Your task to perform on an android device: What is the recent news? Image 0: 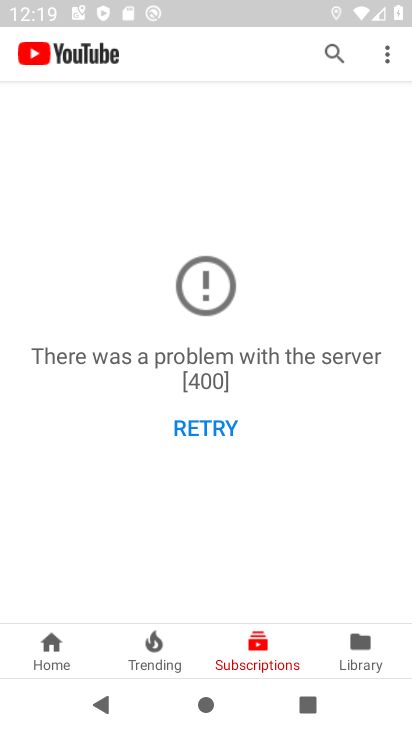
Step 0: press home button
Your task to perform on an android device: What is the recent news? Image 1: 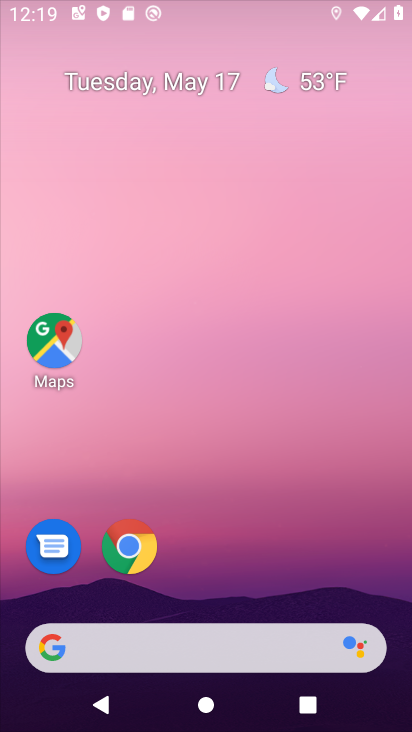
Step 1: drag from (209, 571) to (248, 131)
Your task to perform on an android device: What is the recent news? Image 2: 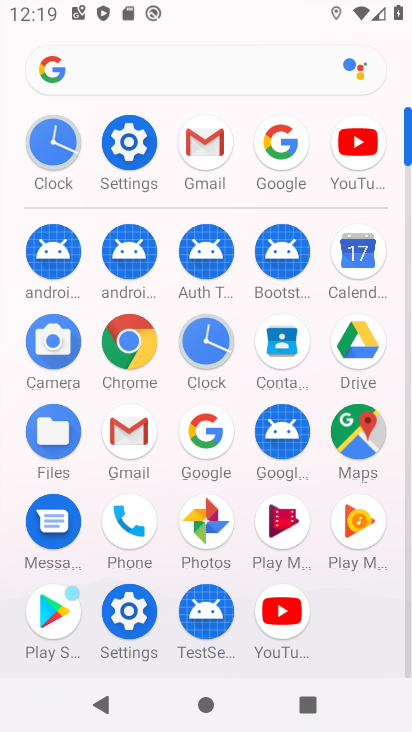
Step 2: click (206, 434)
Your task to perform on an android device: What is the recent news? Image 3: 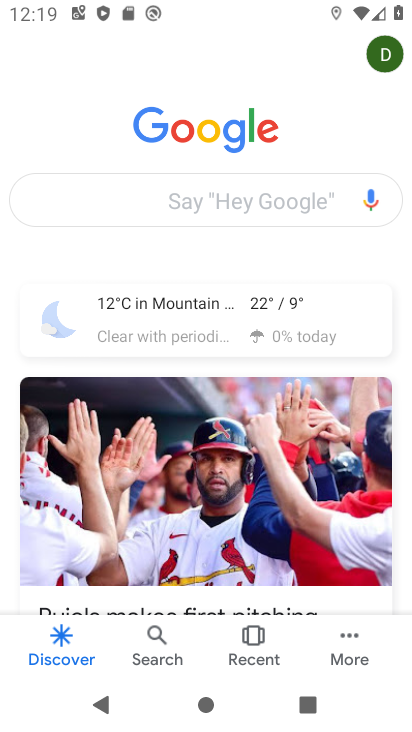
Step 3: click (172, 193)
Your task to perform on an android device: What is the recent news? Image 4: 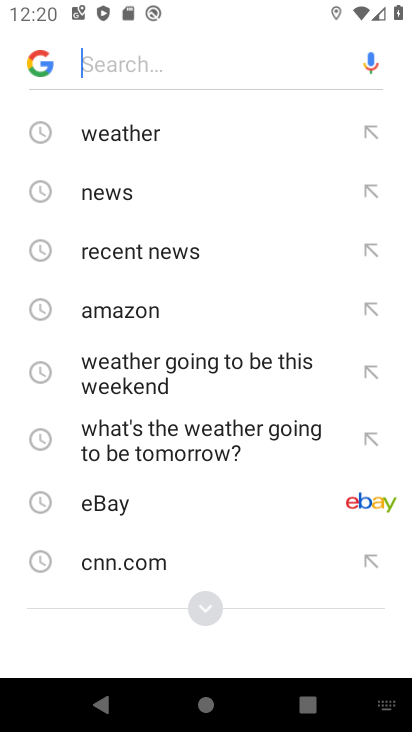
Step 4: click (129, 246)
Your task to perform on an android device: What is the recent news? Image 5: 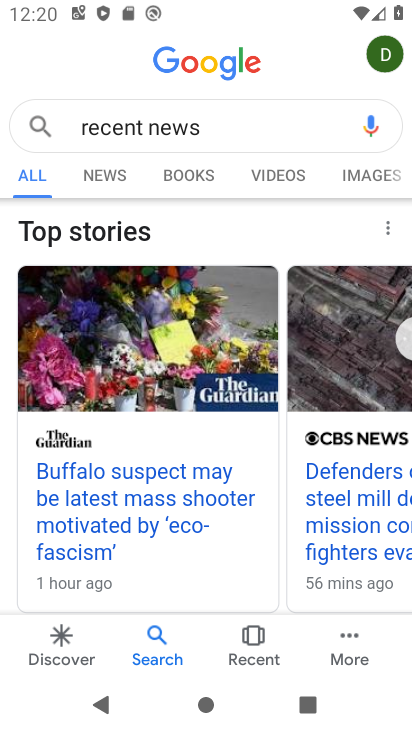
Step 5: task complete